Your task to perform on an android device: turn on translation in the chrome app Image 0: 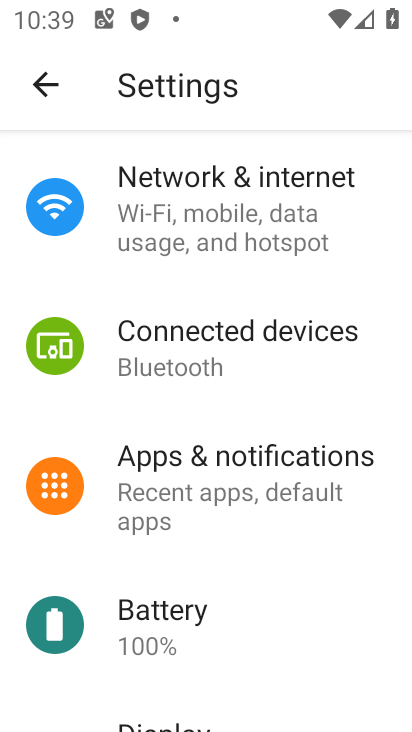
Step 0: press home button
Your task to perform on an android device: turn on translation in the chrome app Image 1: 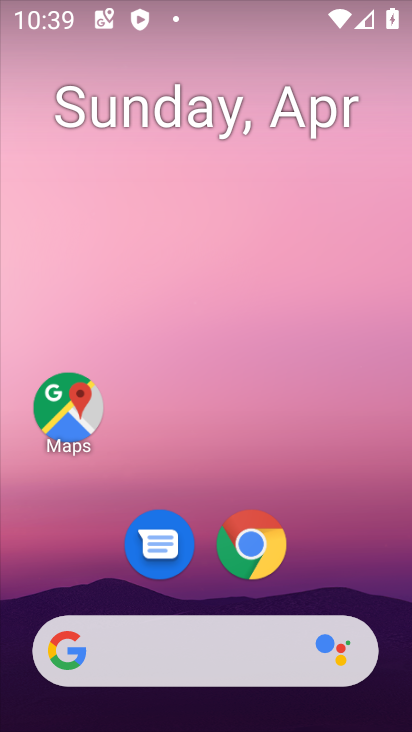
Step 1: click (265, 541)
Your task to perform on an android device: turn on translation in the chrome app Image 2: 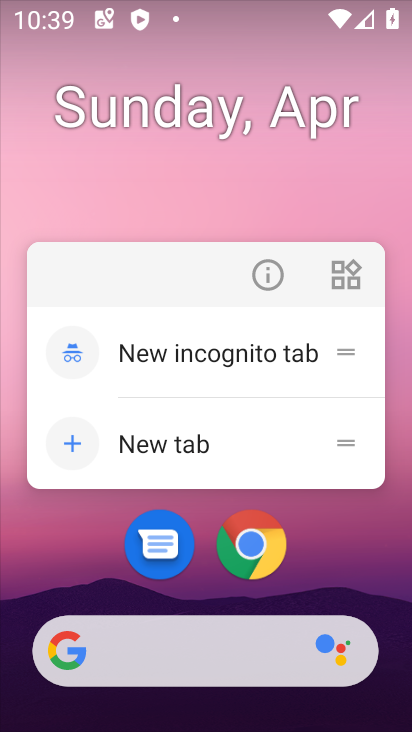
Step 2: click (244, 551)
Your task to perform on an android device: turn on translation in the chrome app Image 3: 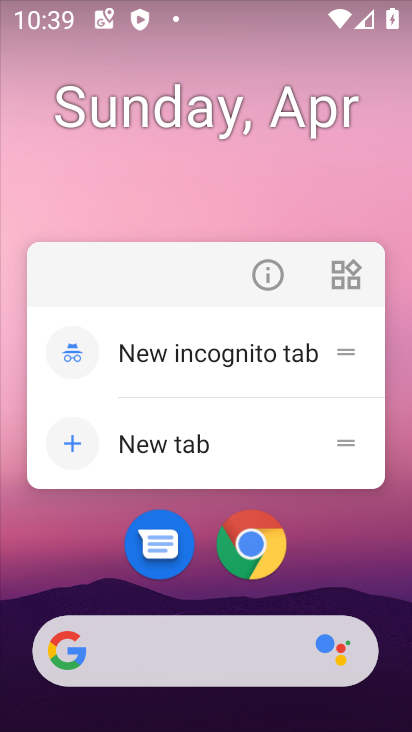
Step 3: click (244, 551)
Your task to perform on an android device: turn on translation in the chrome app Image 4: 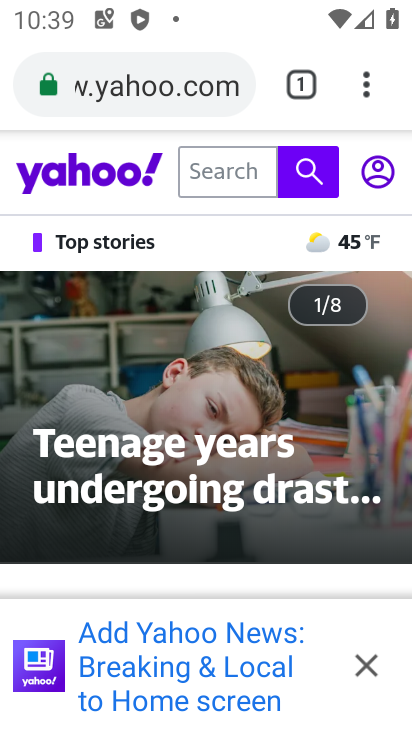
Step 4: drag from (366, 90) to (152, 591)
Your task to perform on an android device: turn on translation in the chrome app Image 5: 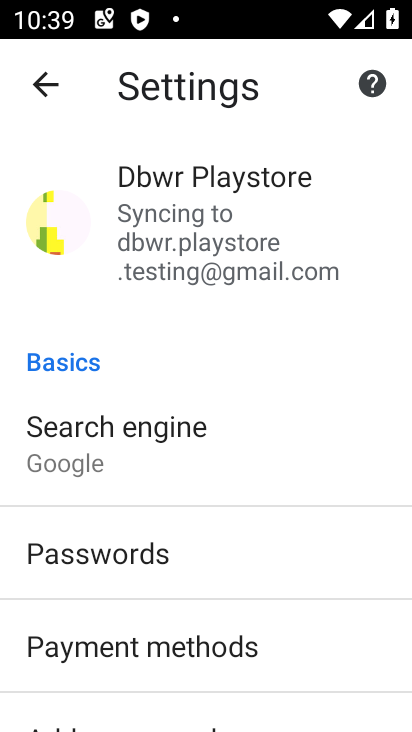
Step 5: drag from (228, 590) to (268, 304)
Your task to perform on an android device: turn on translation in the chrome app Image 6: 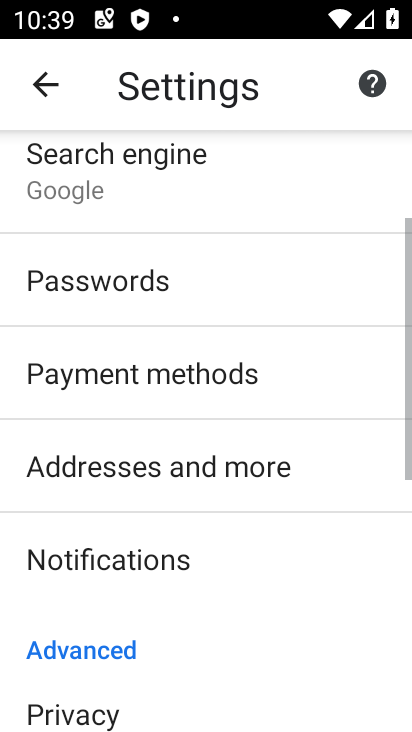
Step 6: drag from (231, 582) to (253, 364)
Your task to perform on an android device: turn on translation in the chrome app Image 7: 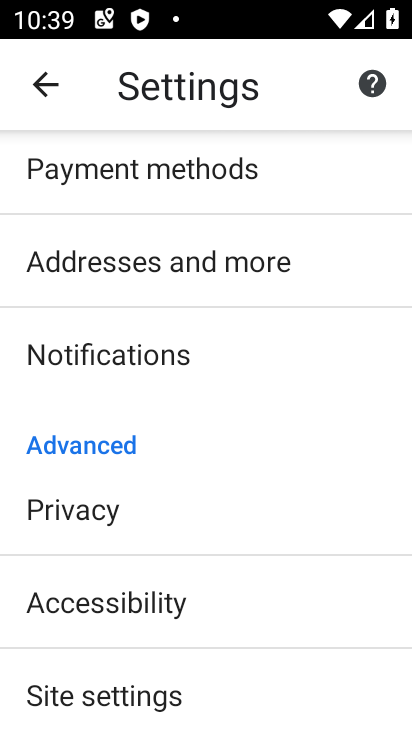
Step 7: drag from (166, 644) to (209, 470)
Your task to perform on an android device: turn on translation in the chrome app Image 8: 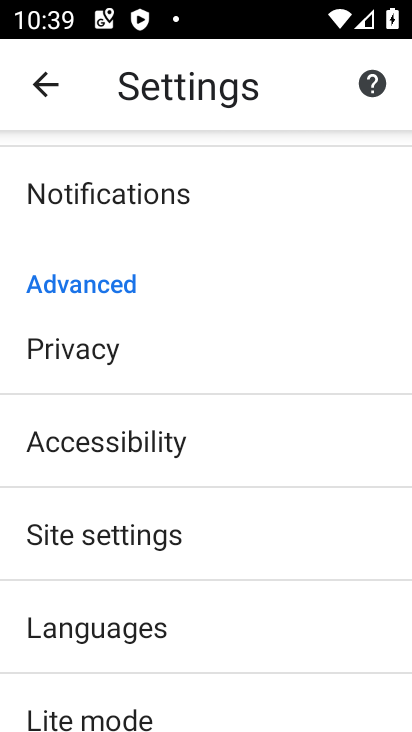
Step 8: click (182, 635)
Your task to perform on an android device: turn on translation in the chrome app Image 9: 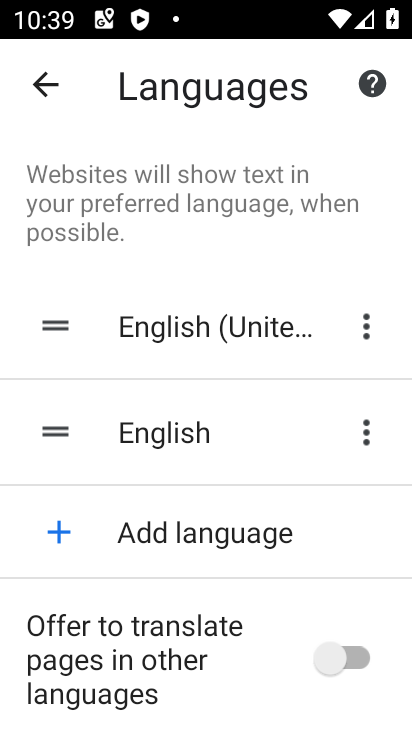
Step 9: click (358, 658)
Your task to perform on an android device: turn on translation in the chrome app Image 10: 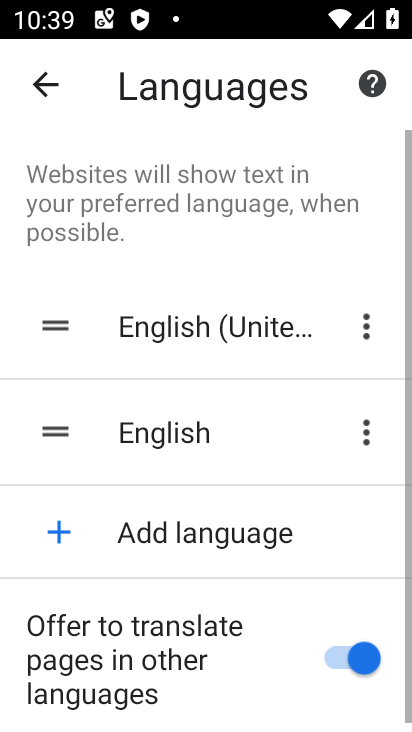
Step 10: task complete